Your task to perform on an android device: Open Amazon Image 0: 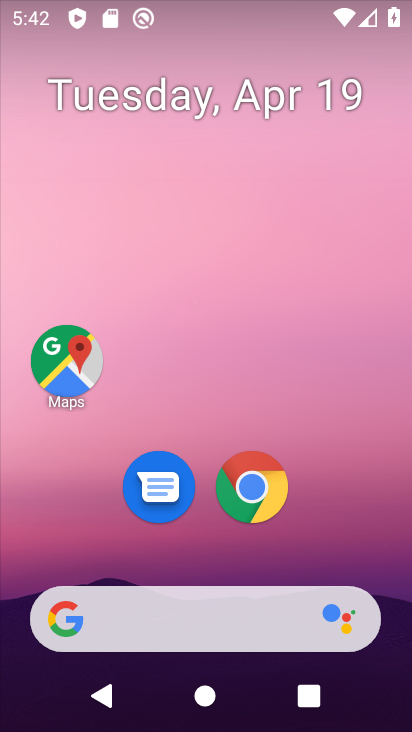
Step 0: drag from (202, 521) to (222, 105)
Your task to perform on an android device: Open Amazon Image 1: 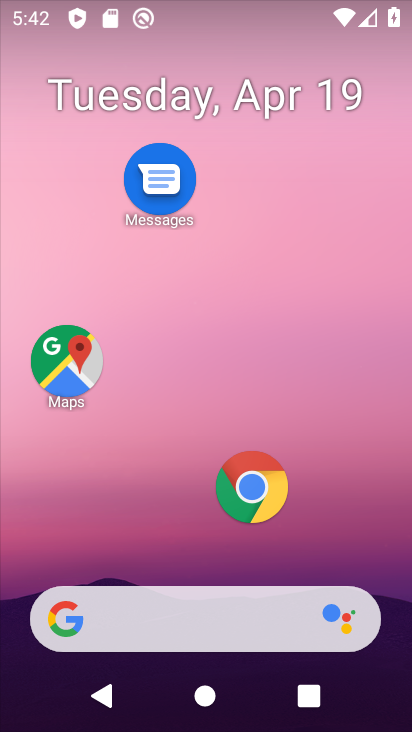
Step 1: click (205, 542)
Your task to perform on an android device: Open Amazon Image 2: 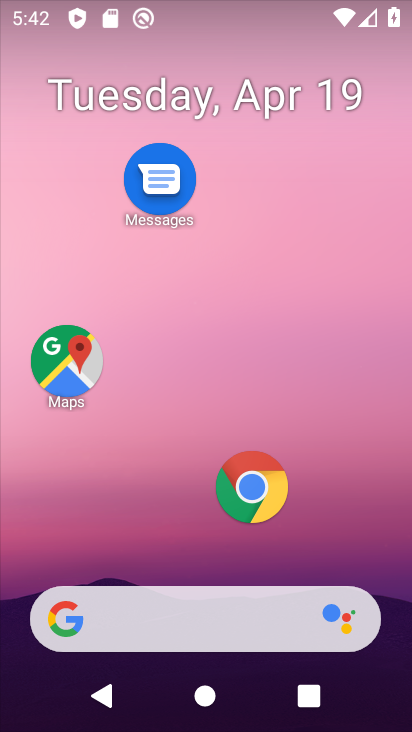
Step 2: drag from (296, 551) to (326, 0)
Your task to perform on an android device: Open Amazon Image 3: 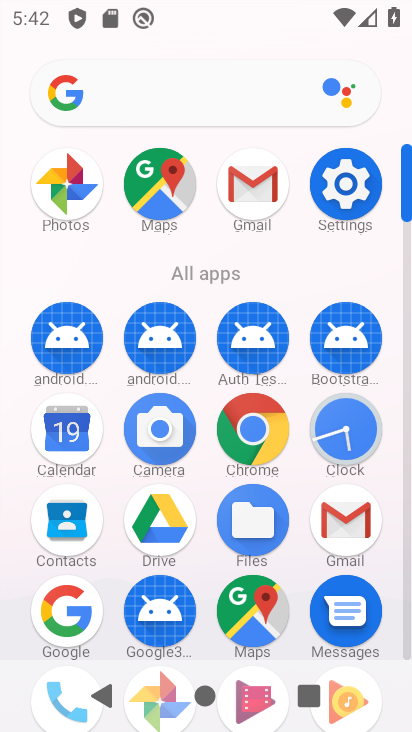
Step 3: click (252, 427)
Your task to perform on an android device: Open Amazon Image 4: 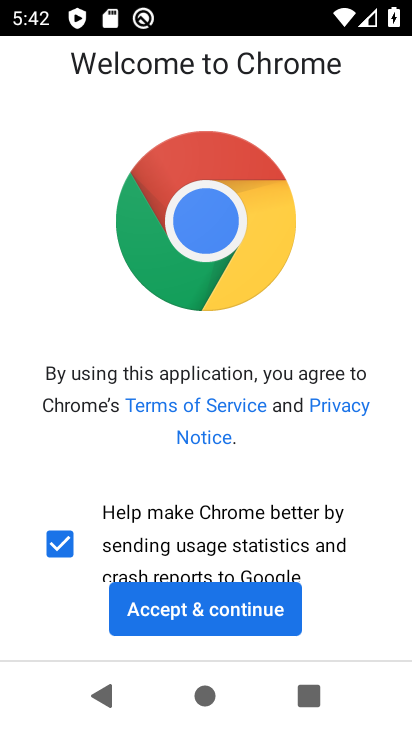
Step 4: click (195, 607)
Your task to perform on an android device: Open Amazon Image 5: 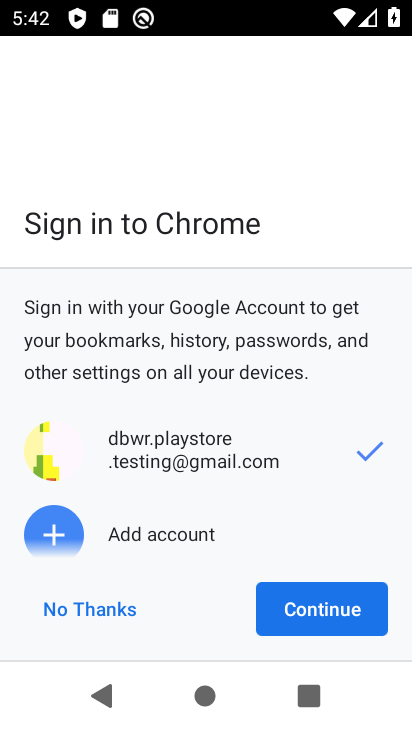
Step 5: click (318, 604)
Your task to perform on an android device: Open Amazon Image 6: 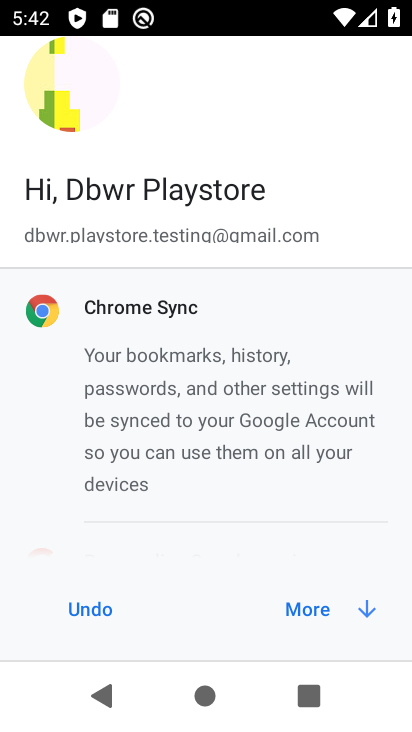
Step 6: click (322, 608)
Your task to perform on an android device: Open Amazon Image 7: 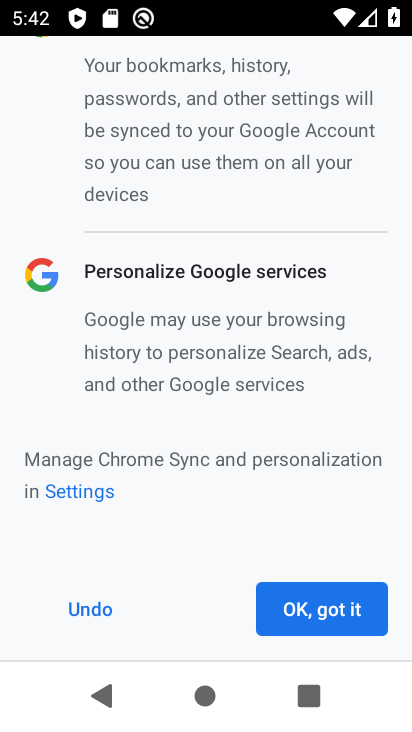
Step 7: click (322, 608)
Your task to perform on an android device: Open Amazon Image 8: 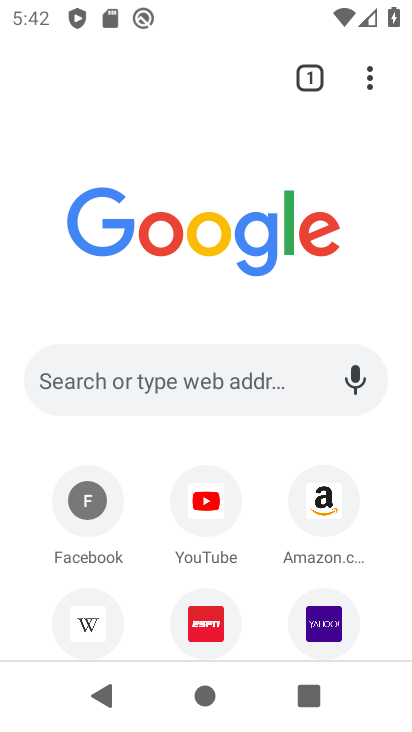
Step 8: click (321, 501)
Your task to perform on an android device: Open Amazon Image 9: 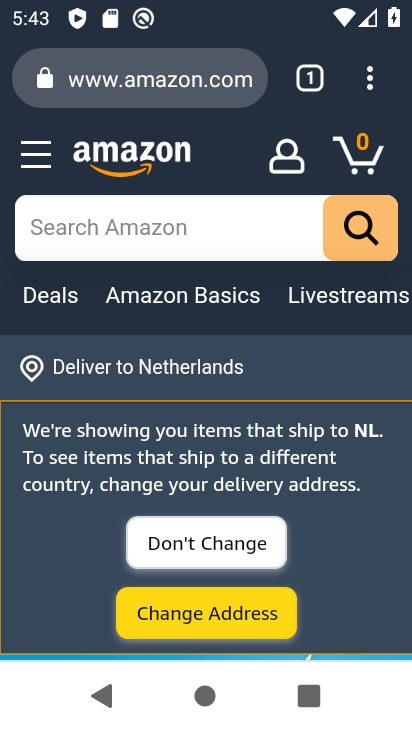
Step 9: drag from (187, 601) to (216, 202)
Your task to perform on an android device: Open Amazon Image 10: 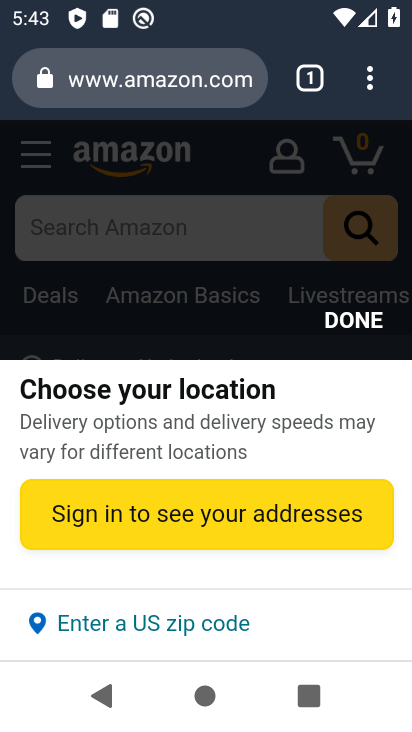
Step 10: click (234, 285)
Your task to perform on an android device: Open Amazon Image 11: 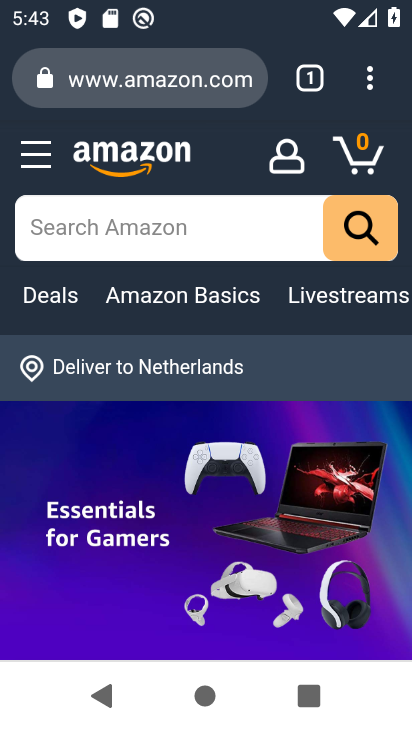
Step 11: task complete